Your task to perform on an android device: Clear the cart on ebay. Image 0: 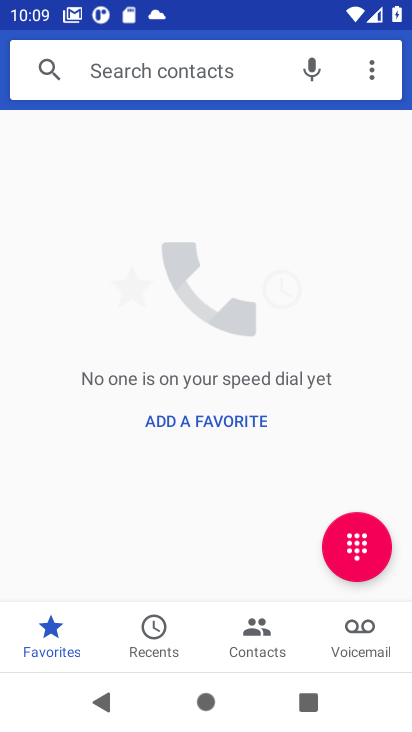
Step 0: press home button
Your task to perform on an android device: Clear the cart on ebay. Image 1: 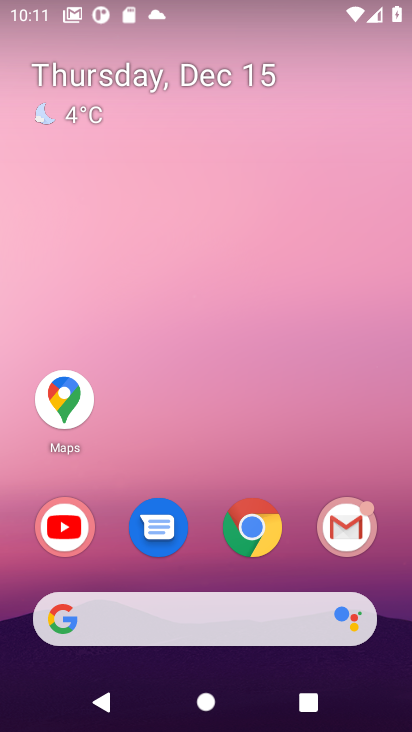
Step 1: click (285, 618)
Your task to perform on an android device: Clear the cart on ebay. Image 2: 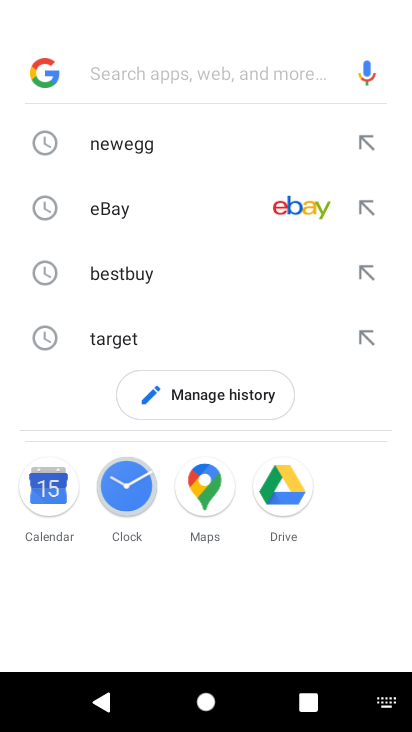
Step 2: click (162, 206)
Your task to perform on an android device: Clear the cart on ebay. Image 3: 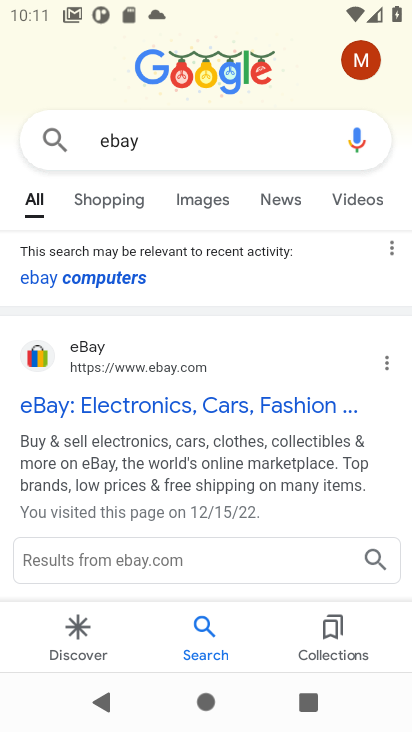
Step 3: click (128, 412)
Your task to perform on an android device: Clear the cart on ebay. Image 4: 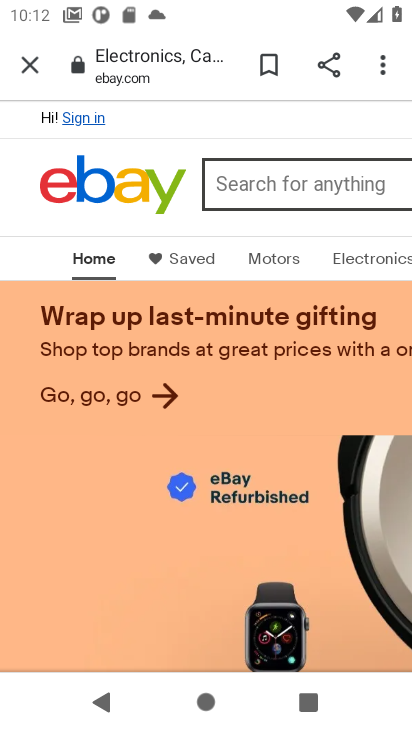
Step 4: task complete